Your task to perform on an android device: toggle improve location accuracy Image 0: 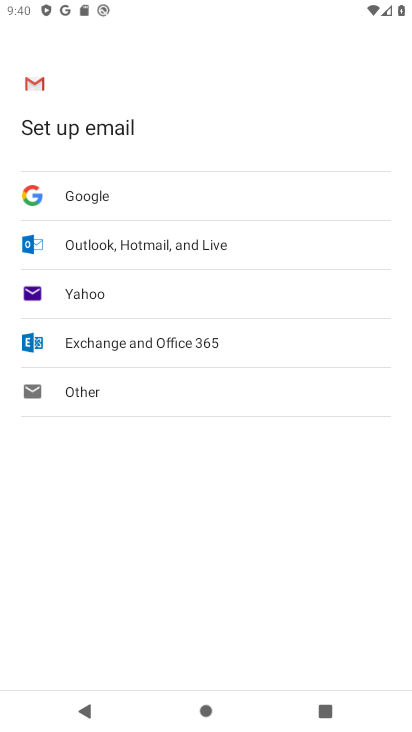
Step 0: press home button
Your task to perform on an android device: toggle improve location accuracy Image 1: 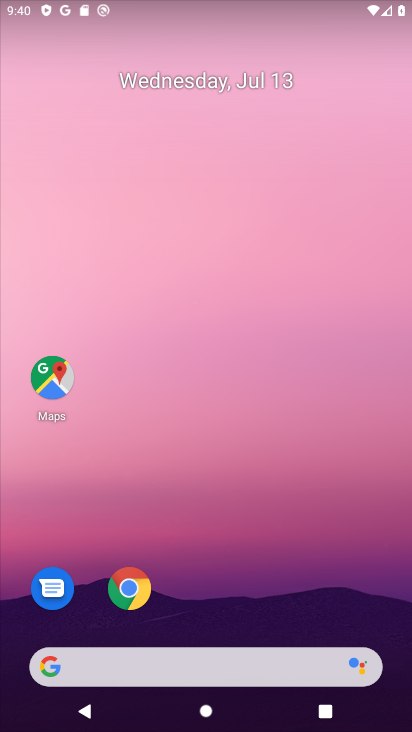
Step 1: drag from (235, 611) to (297, 41)
Your task to perform on an android device: toggle improve location accuracy Image 2: 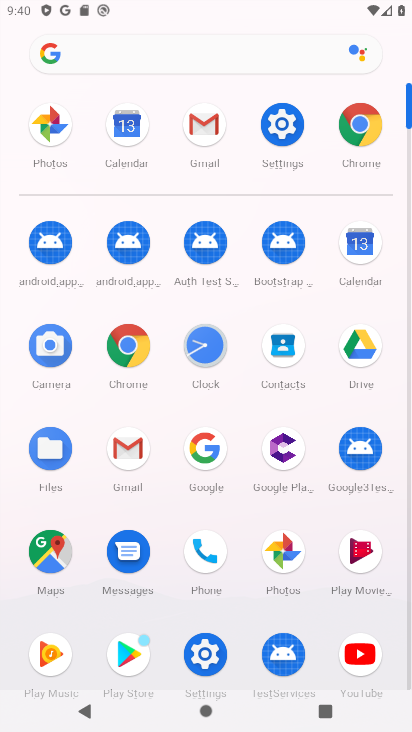
Step 2: click (209, 651)
Your task to perform on an android device: toggle improve location accuracy Image 3: 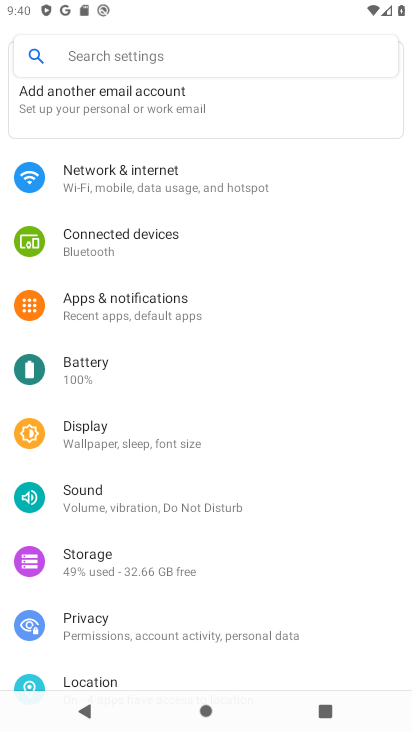
Step 3: drag from (158, 655) to (151, 427)
Your task to perform on an android device: toggle improve location accuracy Image 4: 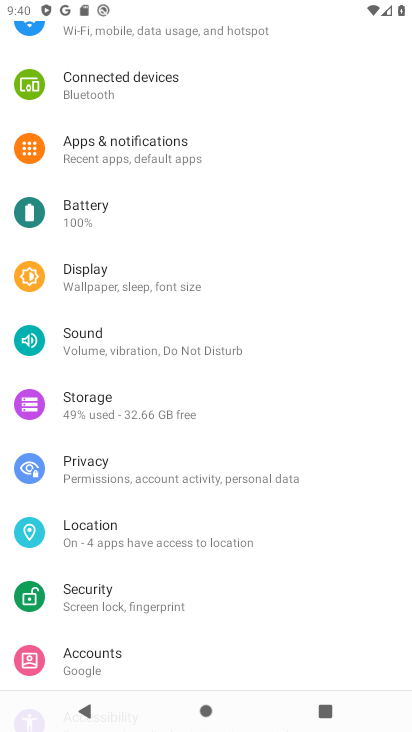
Step 4: click (187, 527)
Your task to perform on an android device: toggle improve location accuracy Image 5: 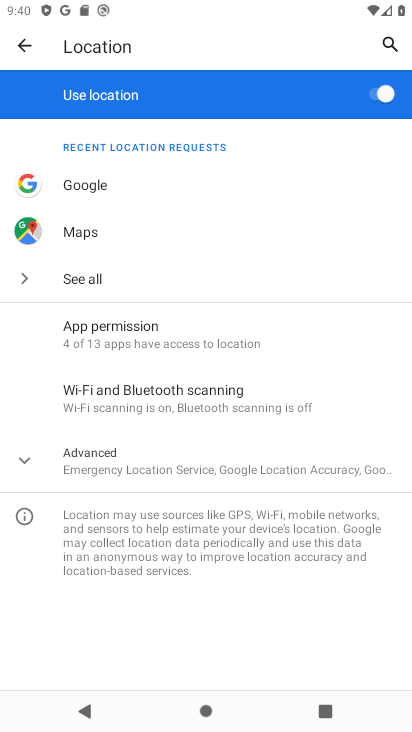
Step 5: click (118, 467)
Your task to perform on an android device: toggle improve location accuracy Image 6: 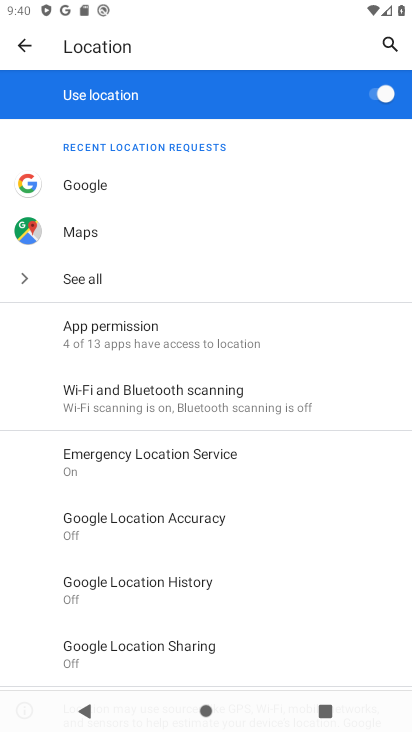
Step 6: click (202, 525)
Your task to perform on an android device: toggle improve location accuracy Image 7: 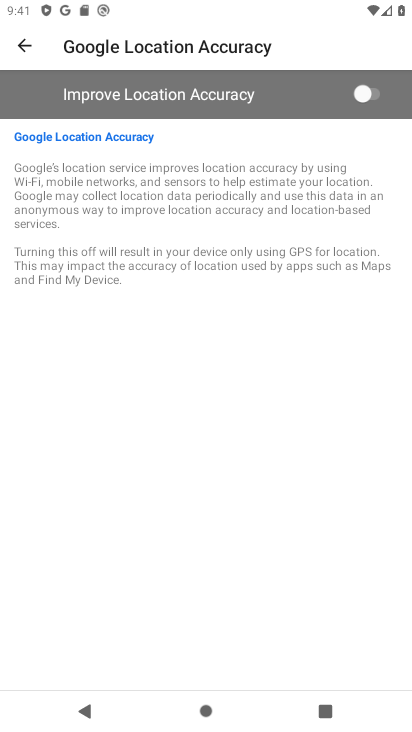
Step 7: click (366, 88)
Your task to perform on an android device: toggle improve location accuracy Image 8: 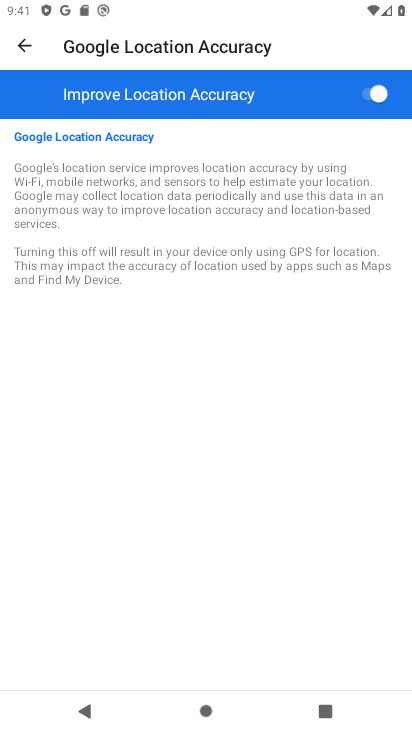
Step 8: task complete